Your task to perform on an android device: change notification settings in the gmail app Image 0: 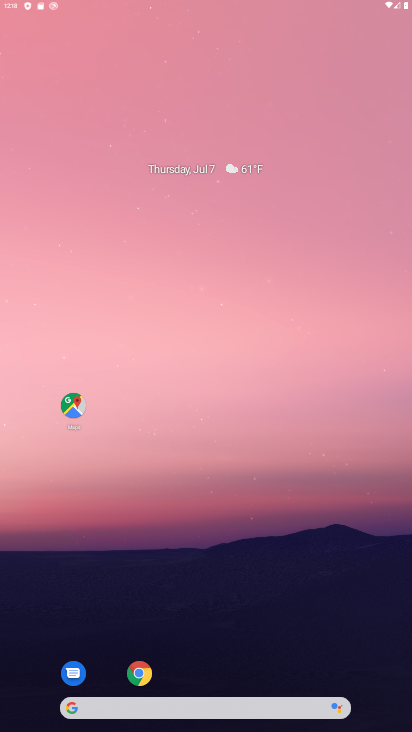
Step 0: click (222, 148)
Your task to perform on an android device: change notification settings in the gmail app Image 1: 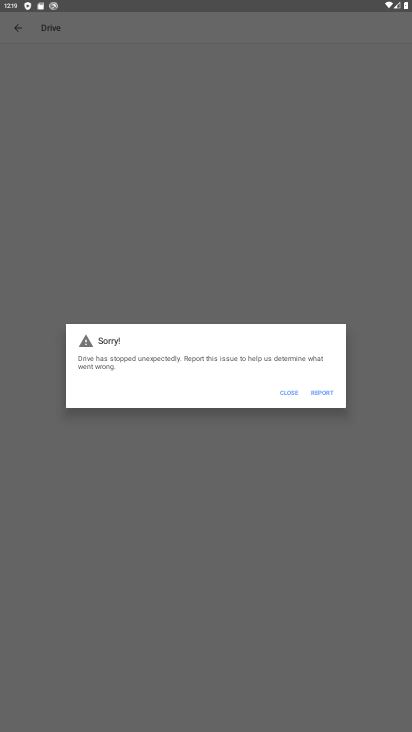
Step 1: press home button
Your task to perform on an android device: change notification settings in the gmail app Image 2: 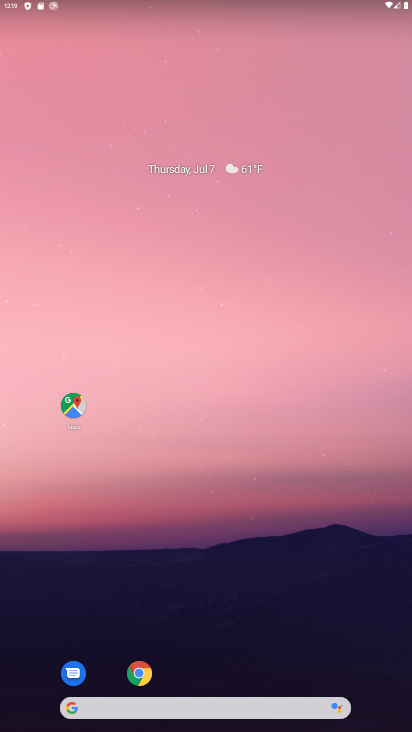
Step 2: drag from (202, 659) to (137, 2)
Your task to perform on an android device: change notification settings in the gmail app Image 3: 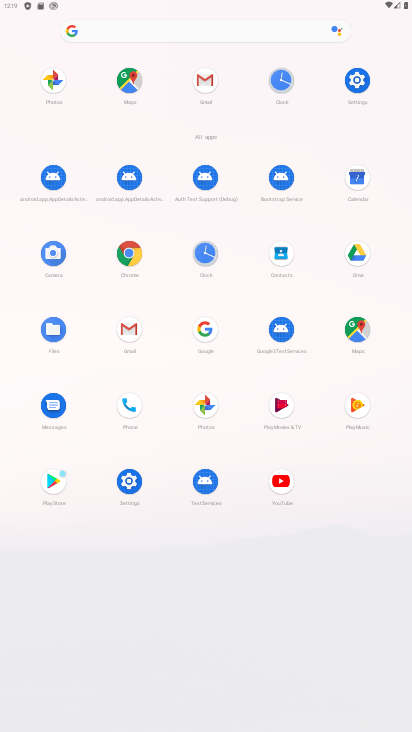
Step 3: click (205, 93)
Your task to perform on an android device: change notification settings in the gmail app Image 4: 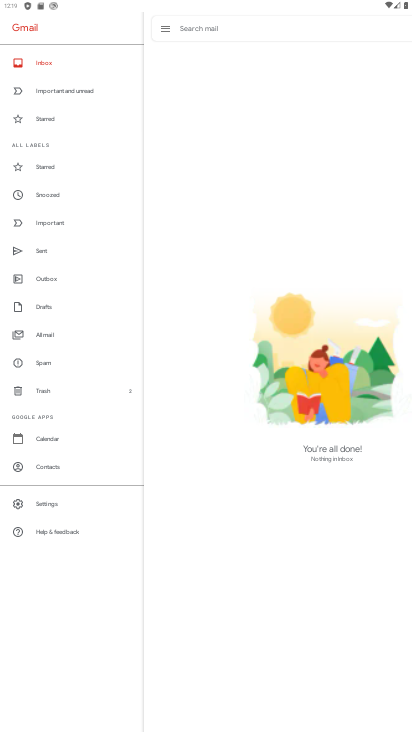
Step 4: click (37, 511)
Your task to perform on an android device: change notification settings in the gmail app Image 5: 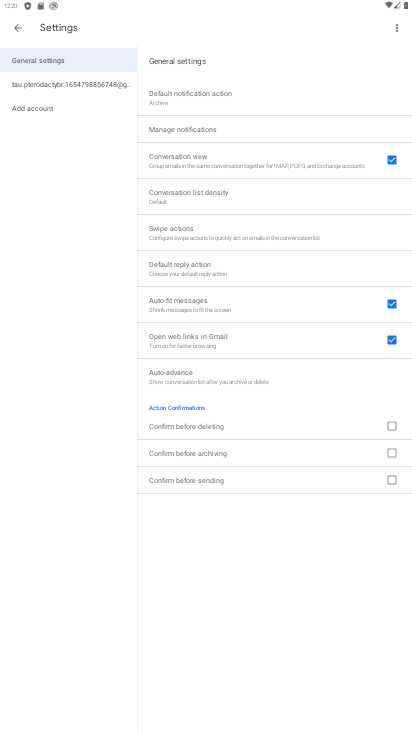
Step 5: click (70, 80)
Your task to perform on an android device: change notification settings in the gmail app Image 6: 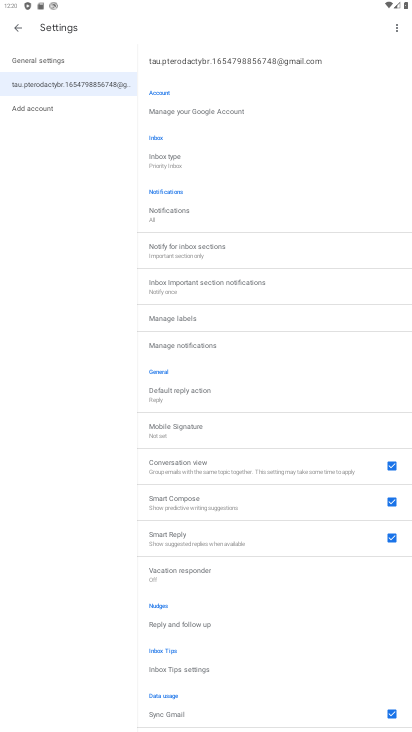
Step 6: click (180, 215)
Your task to perform on an android device: change notification settings in the gmail app Image 7: 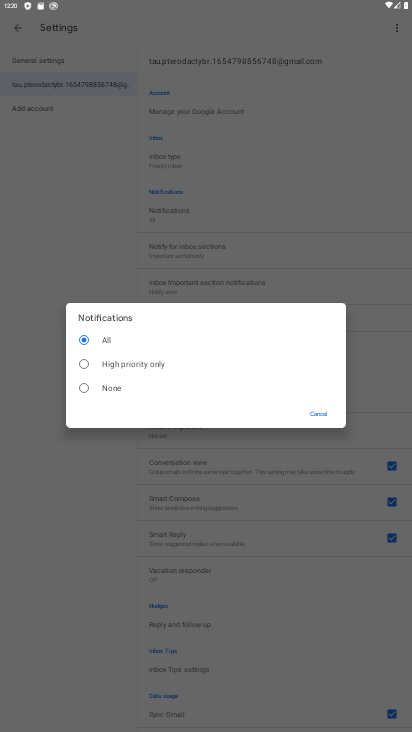
Step 7: click (77, 392)
Your task to perform on an android device: change notification settings in the gmail app Image 8: 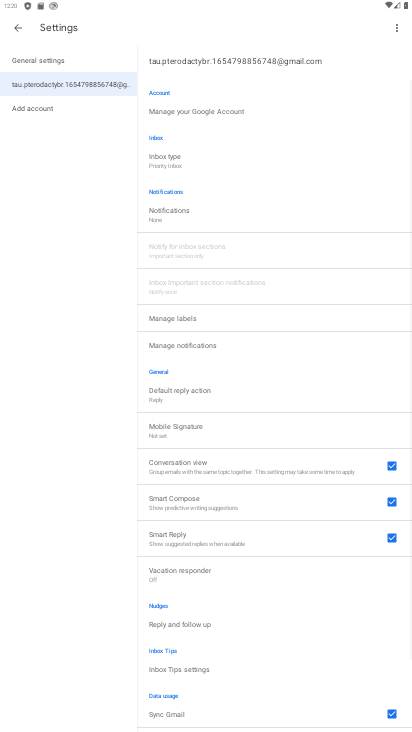
Step 8: task complete